Your task to perform on an android device: Go to ESPN.com Image 0: 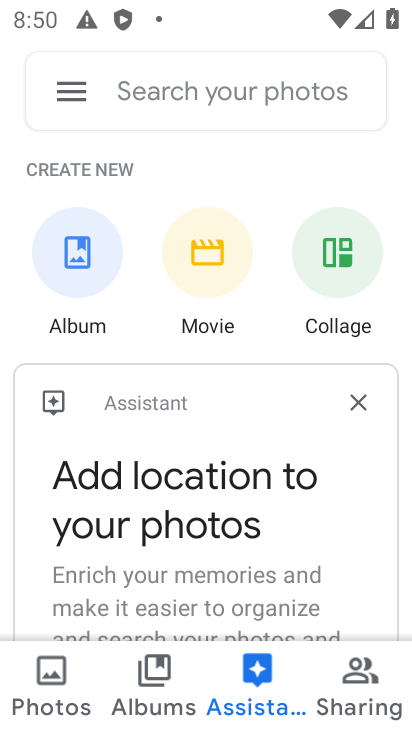
Step 0: press home button
Your task to perform on an android device: Go to ESPN.com Image 1: 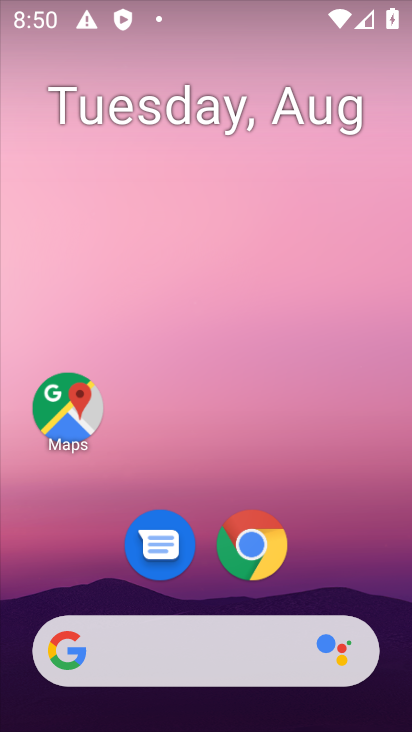
Step 1: click (242, 537)
Your task to perform on an android device: Go to ESPN.com Image 2: 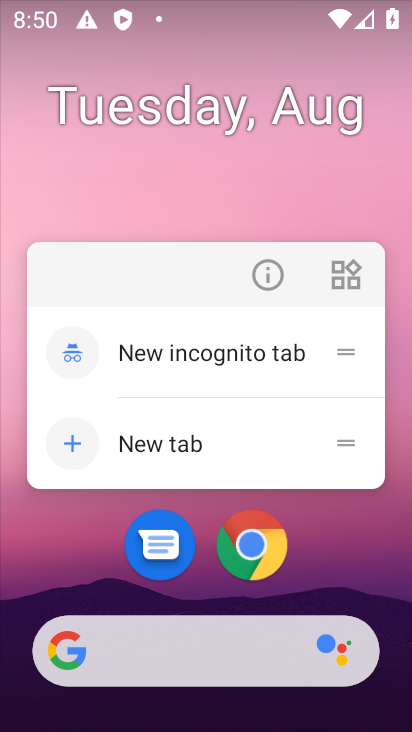
Step 2: click (258, 550)
Your task to perform on an android device: Go to ESPN.com Image 3: 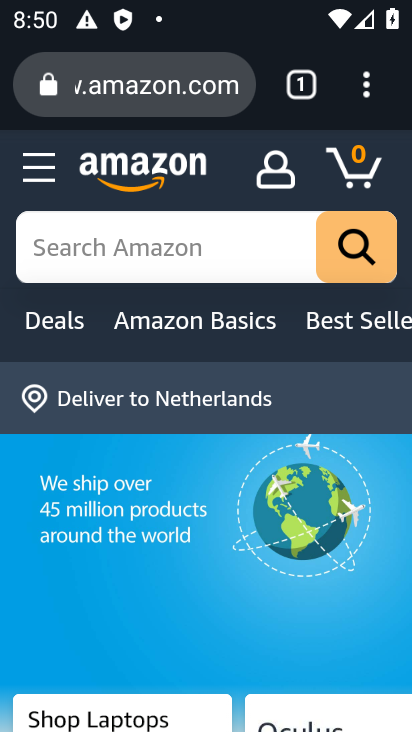
Step 3: click (303, 83)
Your task to perform on an android device: Go to ESPN.com Image 4: 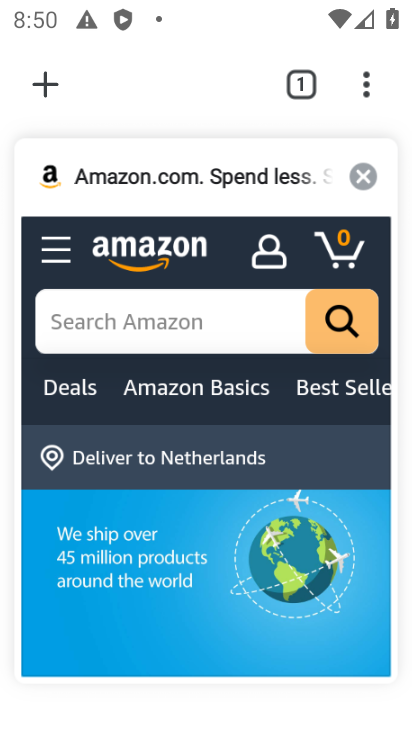
Step 4: click (364, 175)
Your task to perform on an android device: Go to ESPN.com Image 5: 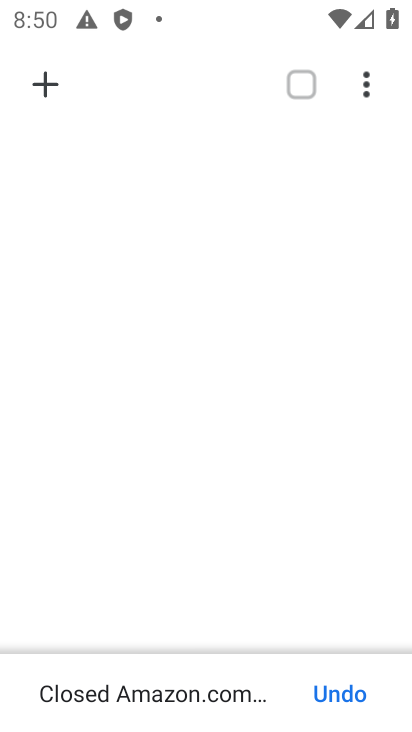
Step 5: click (56, 82)
Your task to perform on an android device: Go to ESPN.com Image 6: 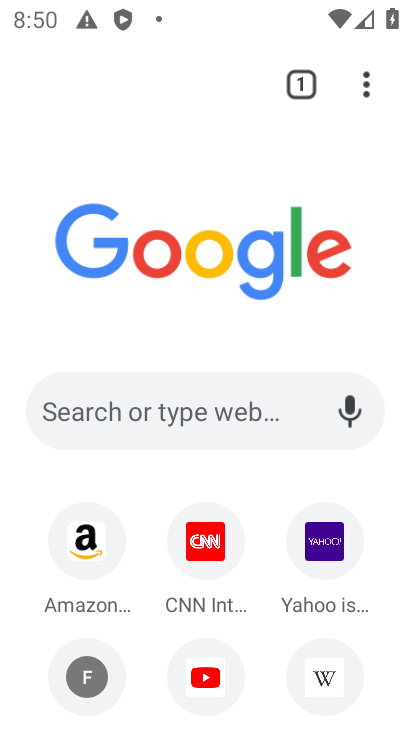
Step 6: drag from (5, 633) to (192, 127)
Your task to perform on an android device: Go to ESPN.com Image 7: 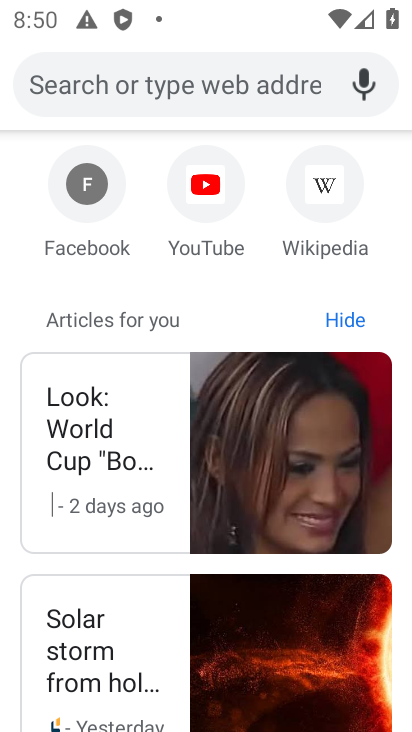
Step 7: drag from (384, 217) to (343, 701)
Your task to perform on an android device: Go to ESPN.com Image 8: 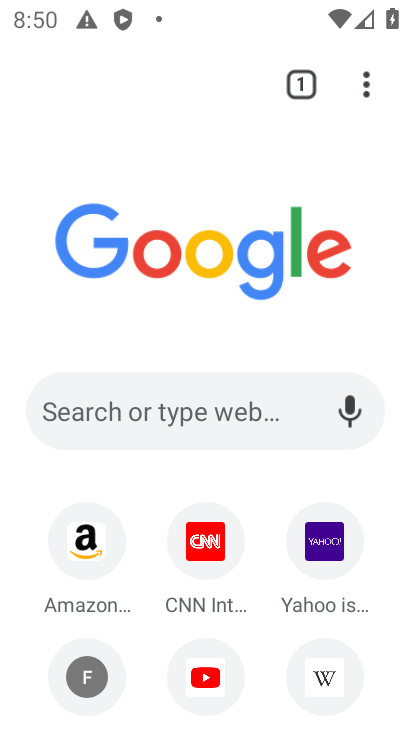
Step 8: click (174, 403)
Your task to perform on an android device: Go to ESPN.com Image 9: 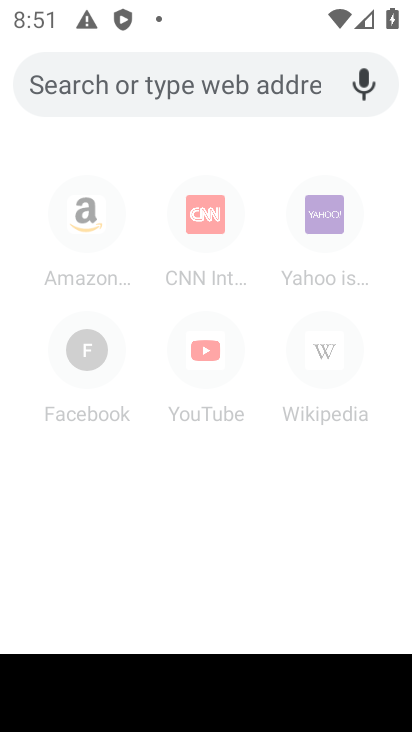
Step 9: type "ESPN.com"
Your task to perform on an android device: Go to ESPN.com Image 10: 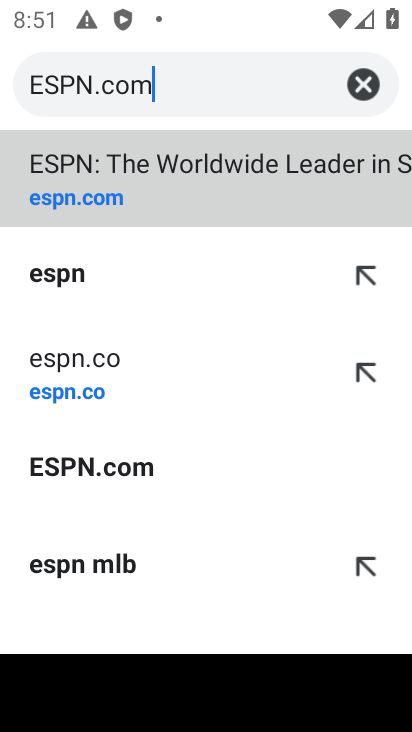
Step 10: type ""
Your task to perform on an android device: Go to ESPN.com Image 11: 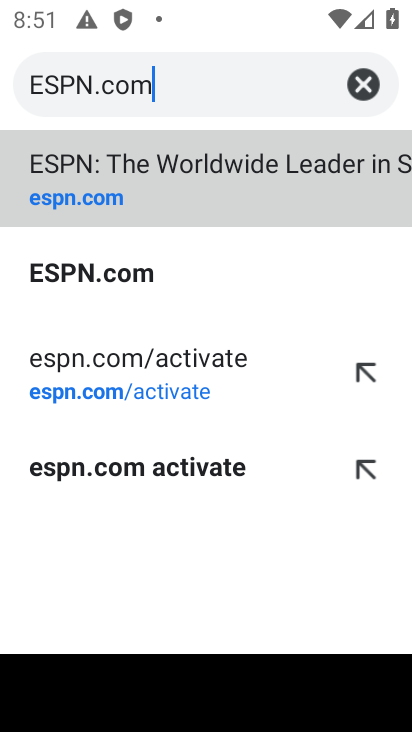
Step 11: click (145, 158)
Your task to perform on an android device: Go to ESPN.com Image 12: 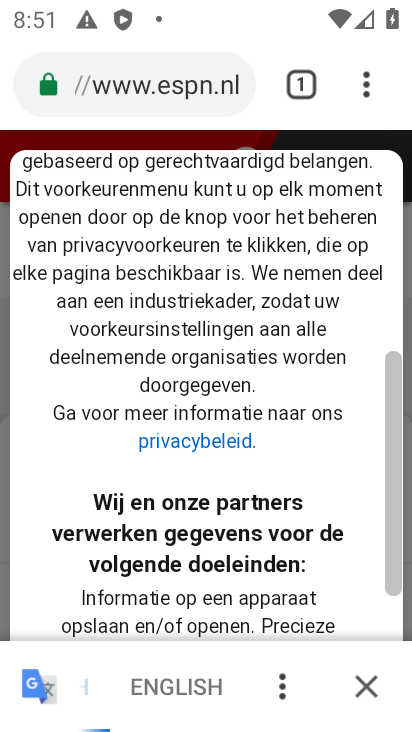
Step 12: task complete